Your task to perform on an android device: turn off javascript in the chrome app Image 0: 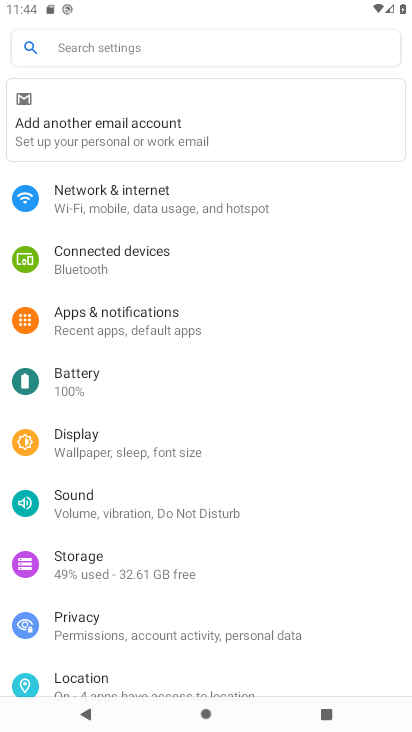
Step 0: press home button
Your task to perform on an android device: turn off javascript in the chrome app Image 1: 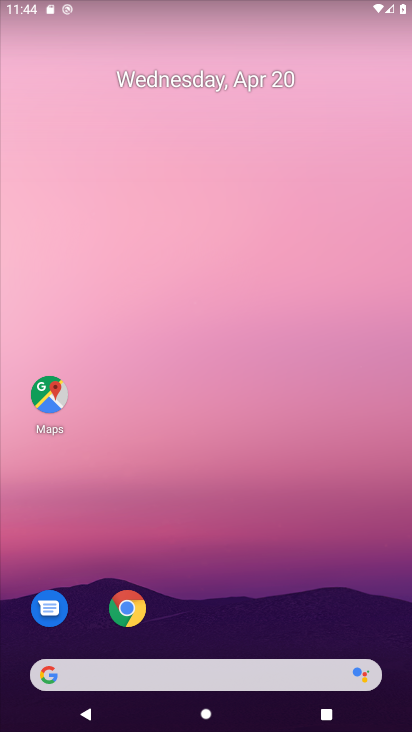
Step 1: click (136, 607)
Your task to perform on an android device: turn off javascript in the chrome app Image 2: 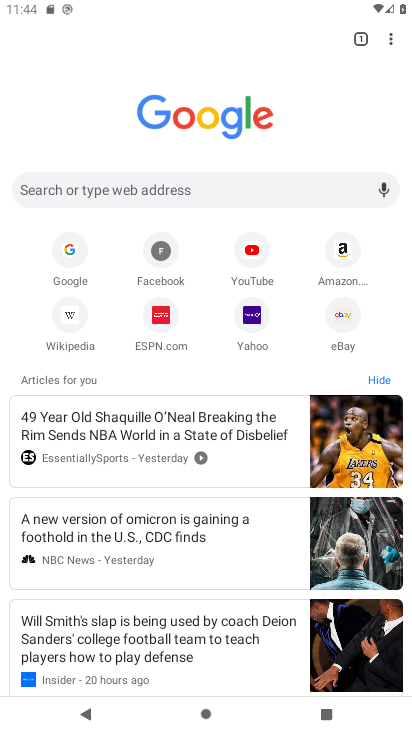
Step 2: click (385, 46)
Your task to perform on an android device: turn off javascript in the chrome app Image 3: 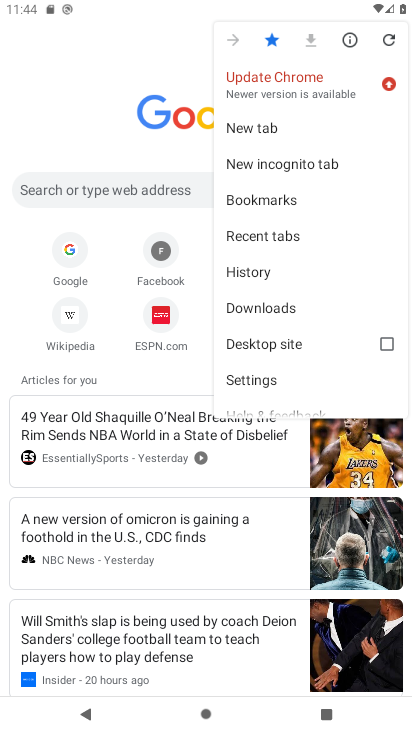
Step 3: click (257, 386)
Your task to perform on an android device: turn off javascript in the chrome app Image 4: 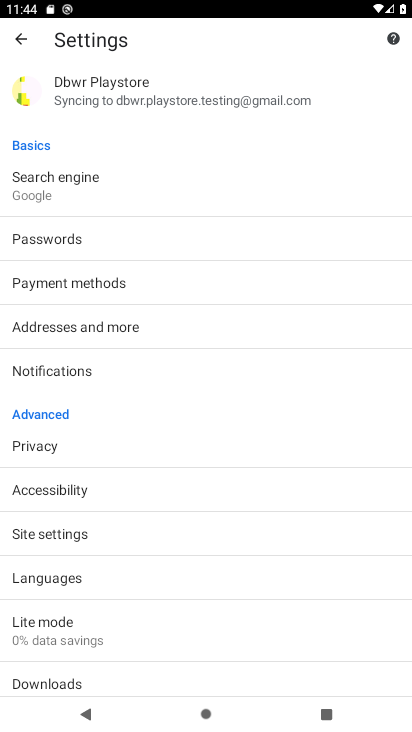
Step 4: click (123, 534)
Your task to perform on an android device: turn off javascript in the chrome app Image 5: 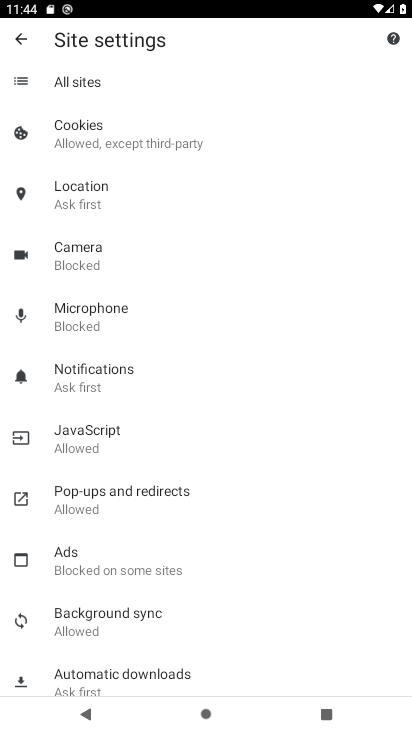
Step 5: drag from (141, 645) to (196, 500)
Your task to perform on an android device: turn off javascript in the chrome app Image 6: 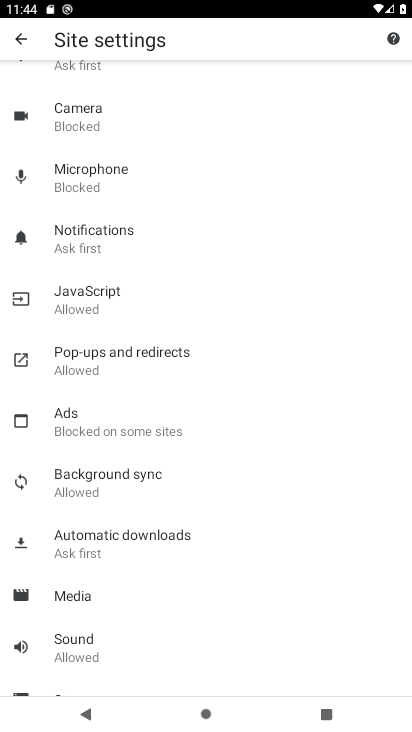
Step 6: click (97, 302)
Your task to perform on an android device: turn off javascript in the chrome app Image 7: 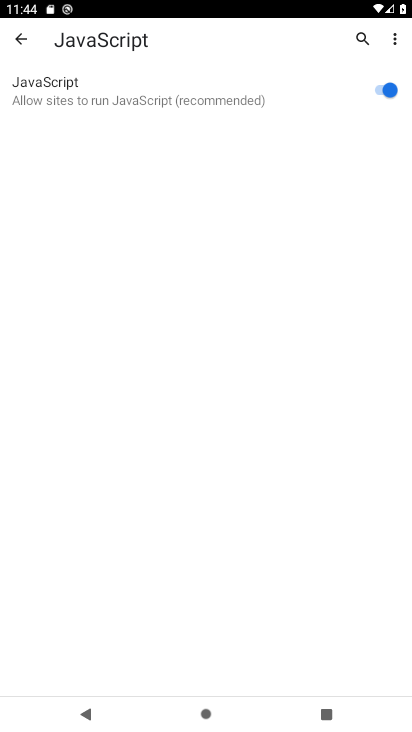
Step 7: click (376, 94)
Your task to perform on an android device: turn off javascript in the chrome app Image 8: 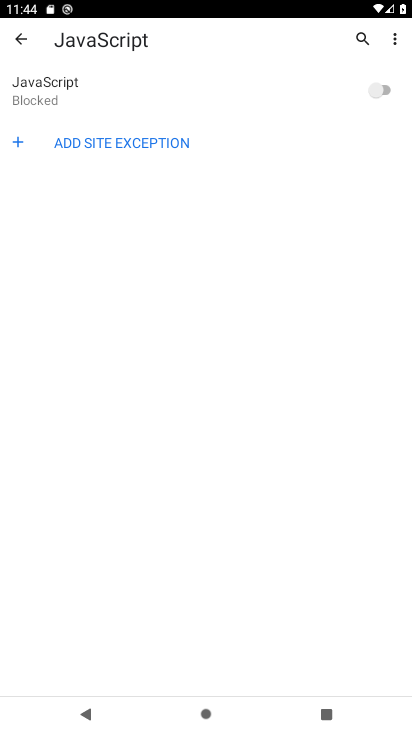
Step 8: task complete